Your task to perform on an android device: toggle airplane mode Image 0: 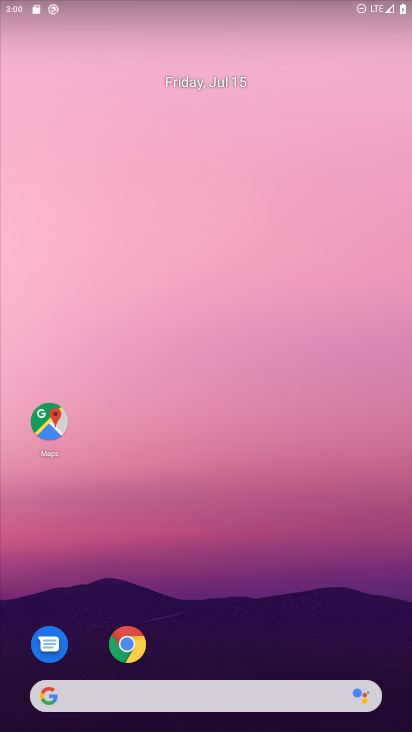
Step 0: drag from (287, 2) to (247, 507)
Your task to perform on an android device: toggle airplane mode Image 1: 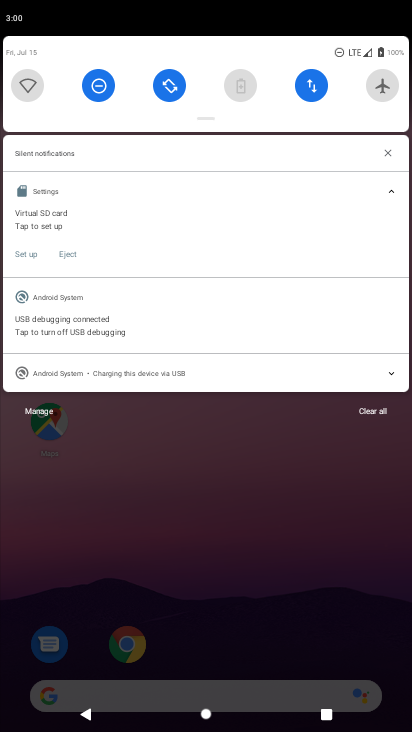
Step 1: click (395, 87)
Your task to perform on an android device: toggle airplane mode Image 2: 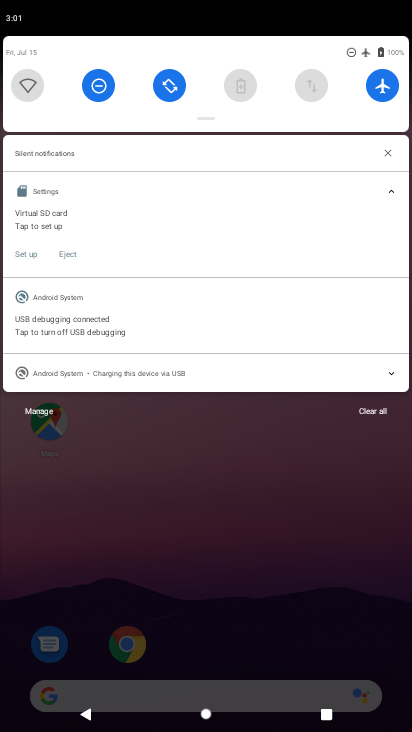
Step 2: task complete